Your task to perform on an android device: What is the recent news? Image 0: 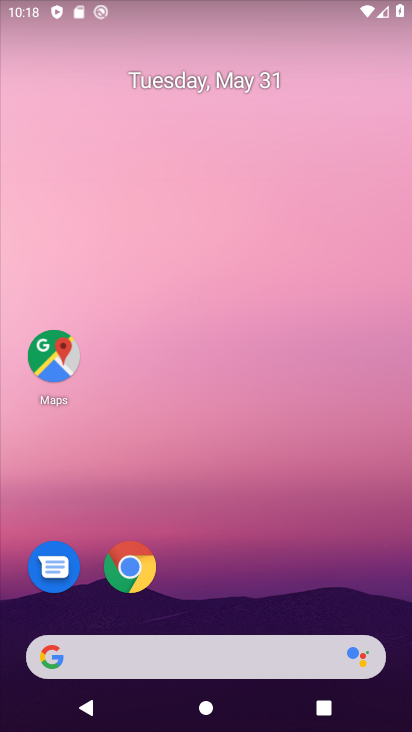
Step 0: drag from (246, 572) to (254, 74)
Your task to perform on an android device: What is the recent news? Image 1: 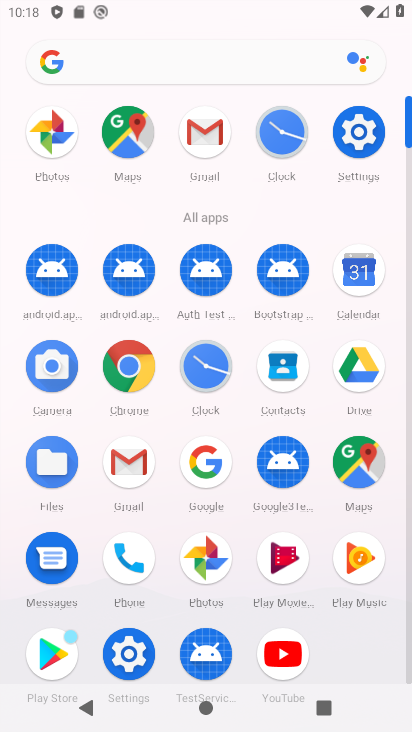
Step 1: click (176, 56)
Your task to perform on an android device: What is the recent news? Image 2: 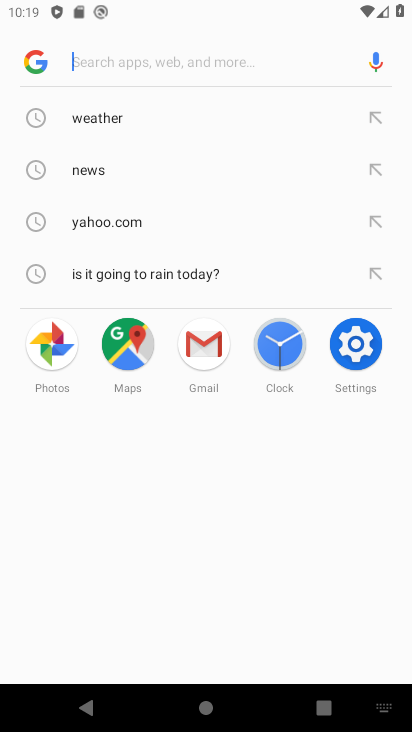
Step 2: type "recent news"
Your task to perform on an android device: What is the recent news? Image 3: 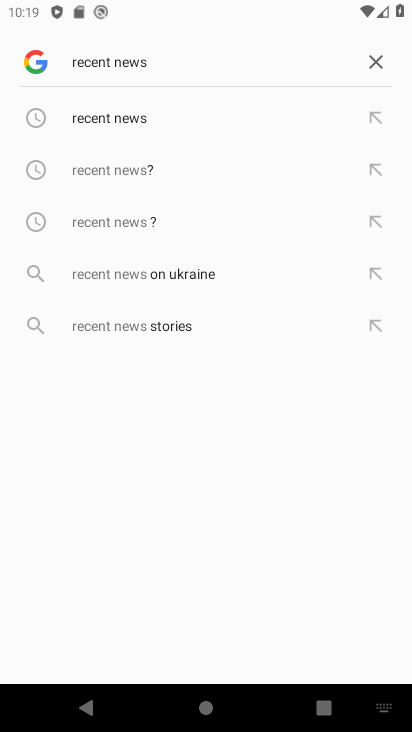
Step 3: click (104, 122)
Your task to perform on an android device: What is the recent news? Image 4: 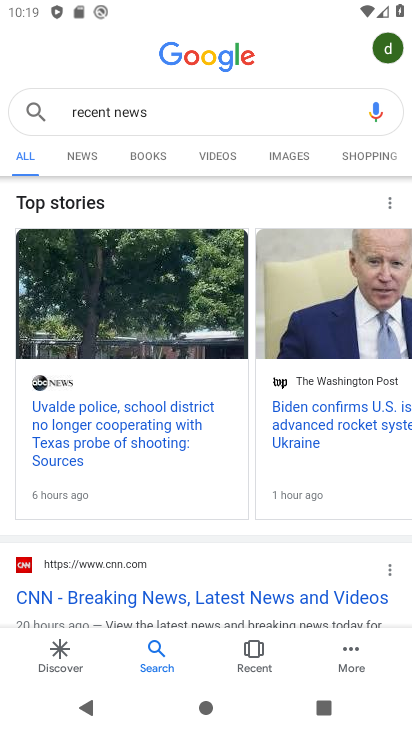
Step 4: task complete